Your task to perform on an android device: Do I have any events this weekend? Image 0: 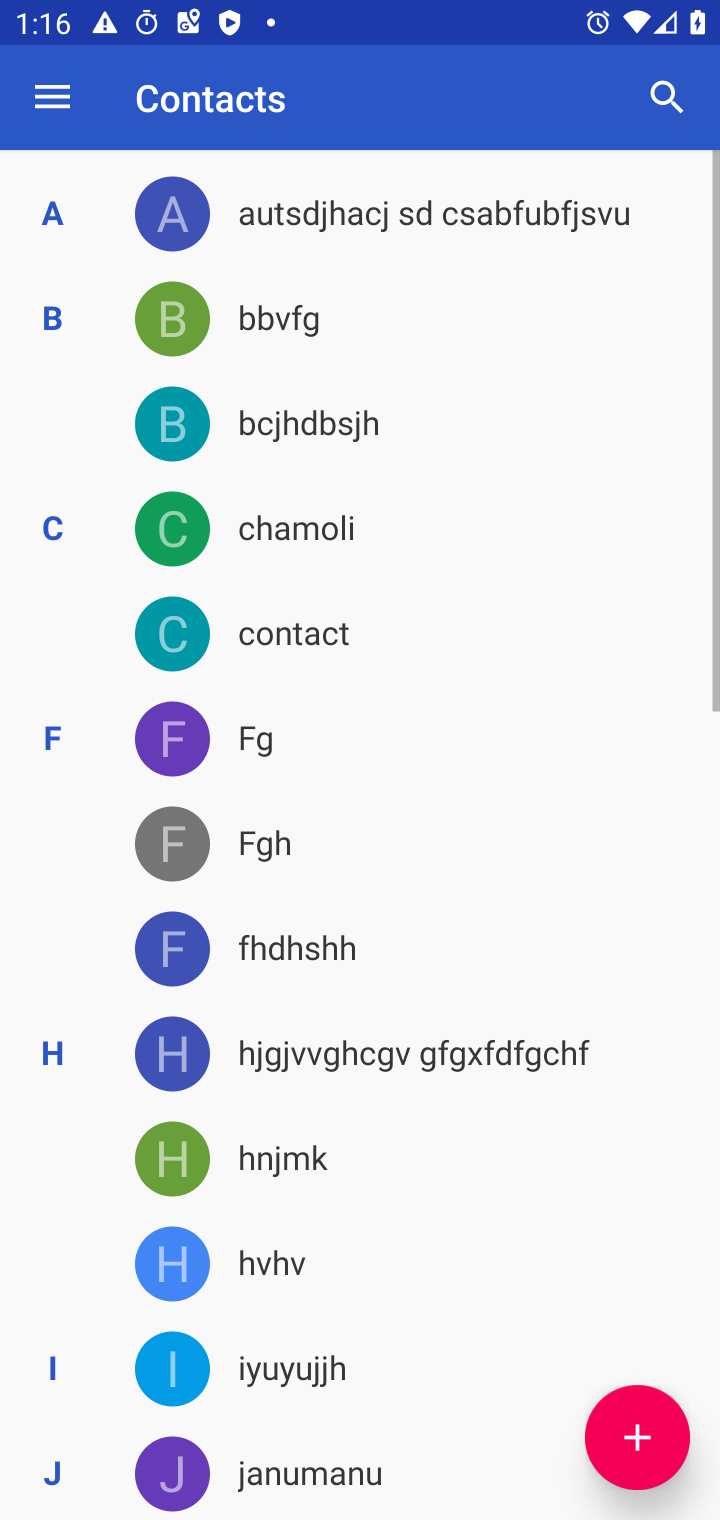
Step 0: press home button
Your task to perform on an android device: Do I have any events this weekend? Image 1: 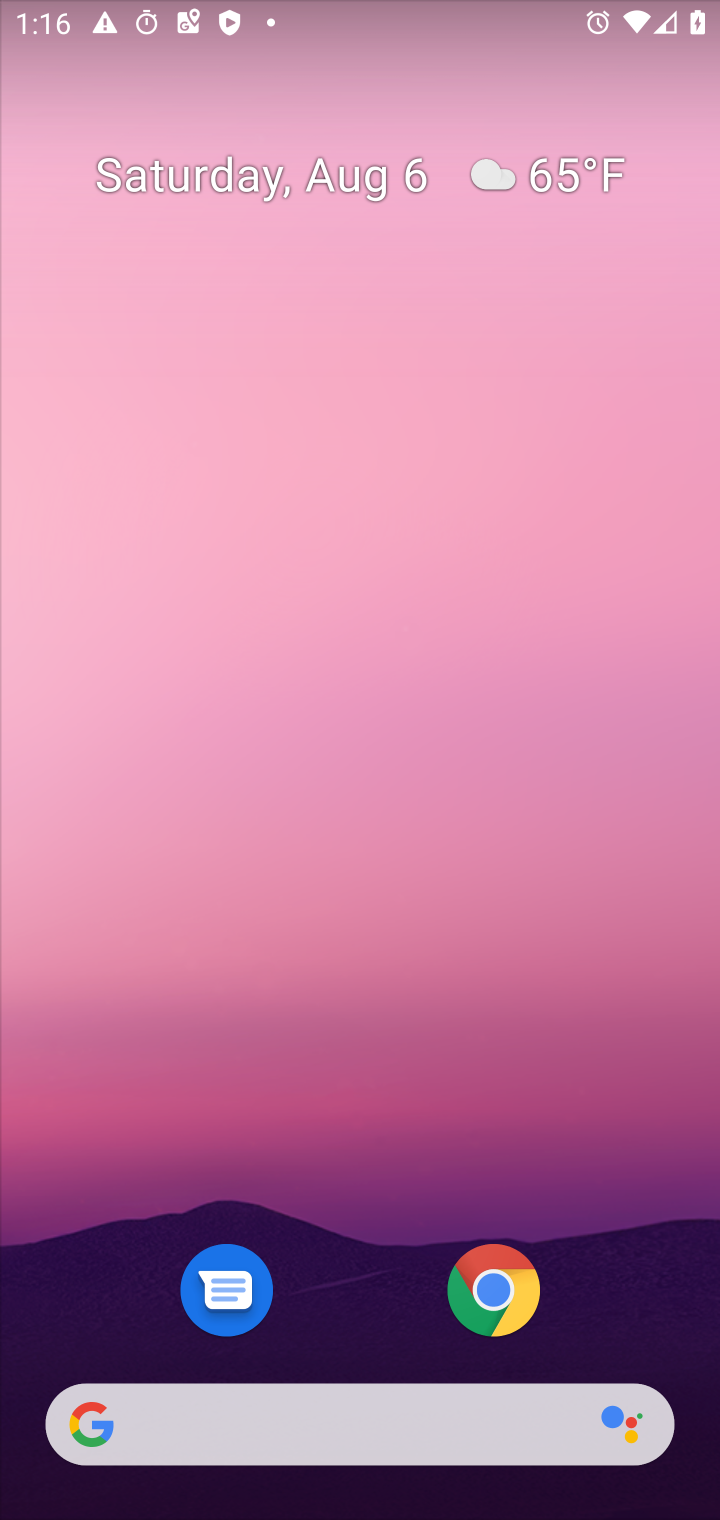
Step 1: drag from (365, 1334) to (344, 11)
Your task to perform on an android device: Do I have any events this weekend? Image 2: 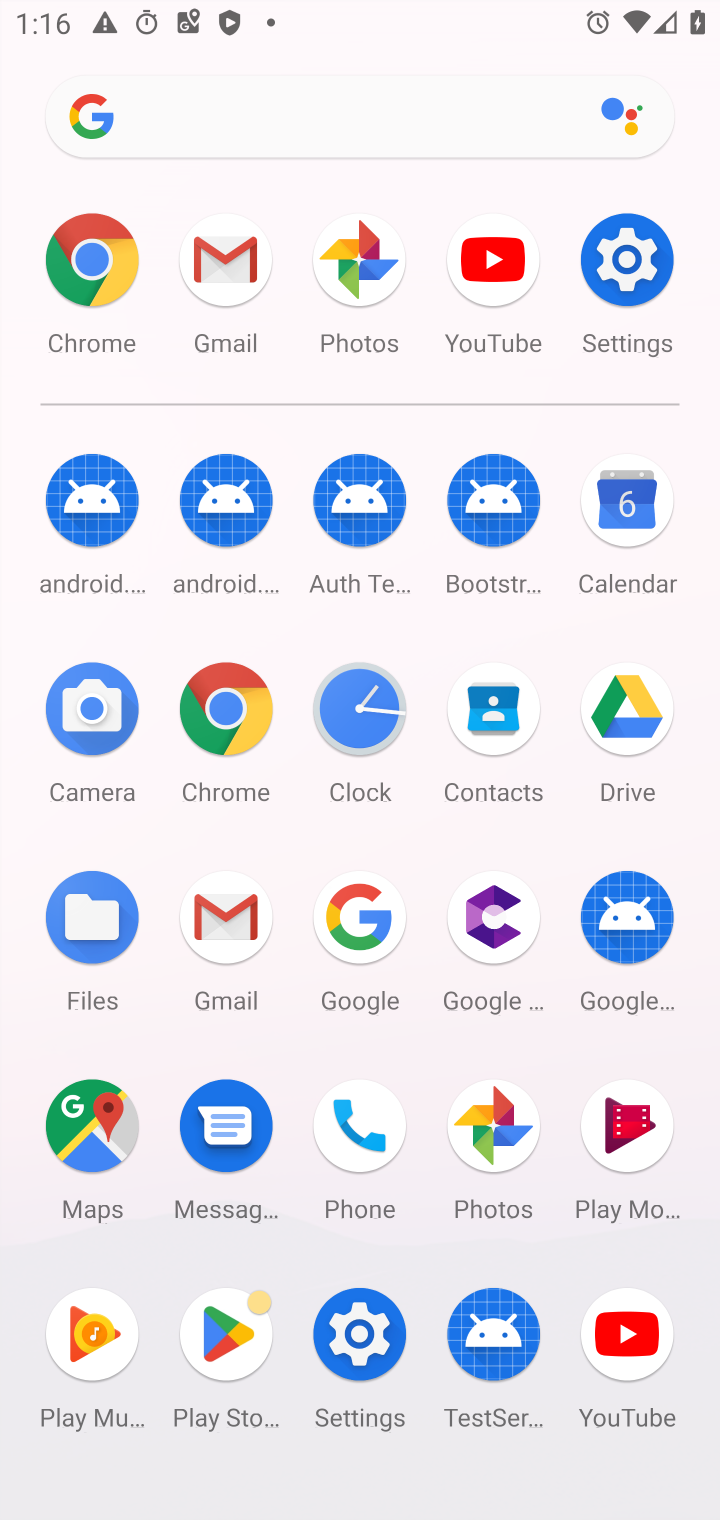
Step 2: click (627, 487)
Your task to perform on an android device: Do I have any events this weekend? Image 3: 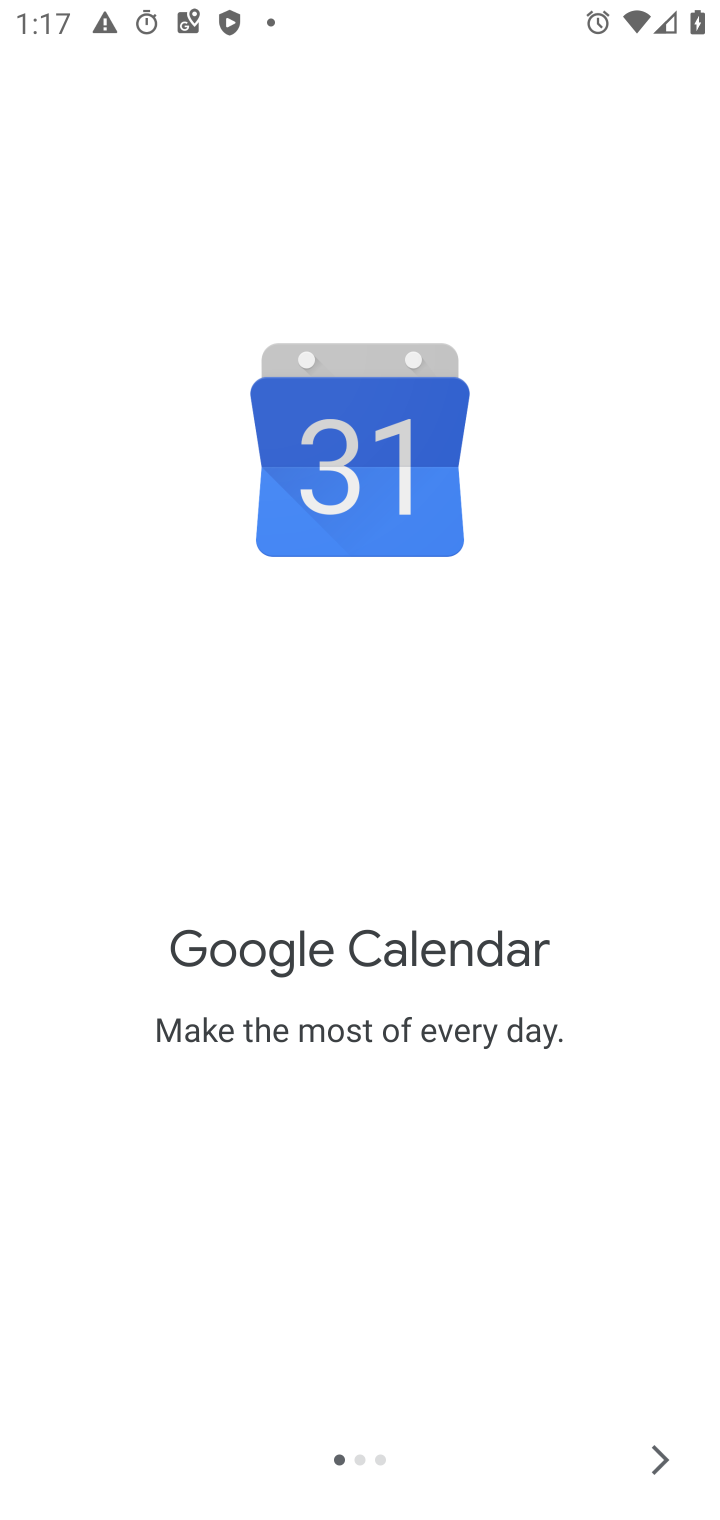
Step 3: click (644, 1441)
Your task to perform on an android device: Do I have any events this weekend? Image 4: 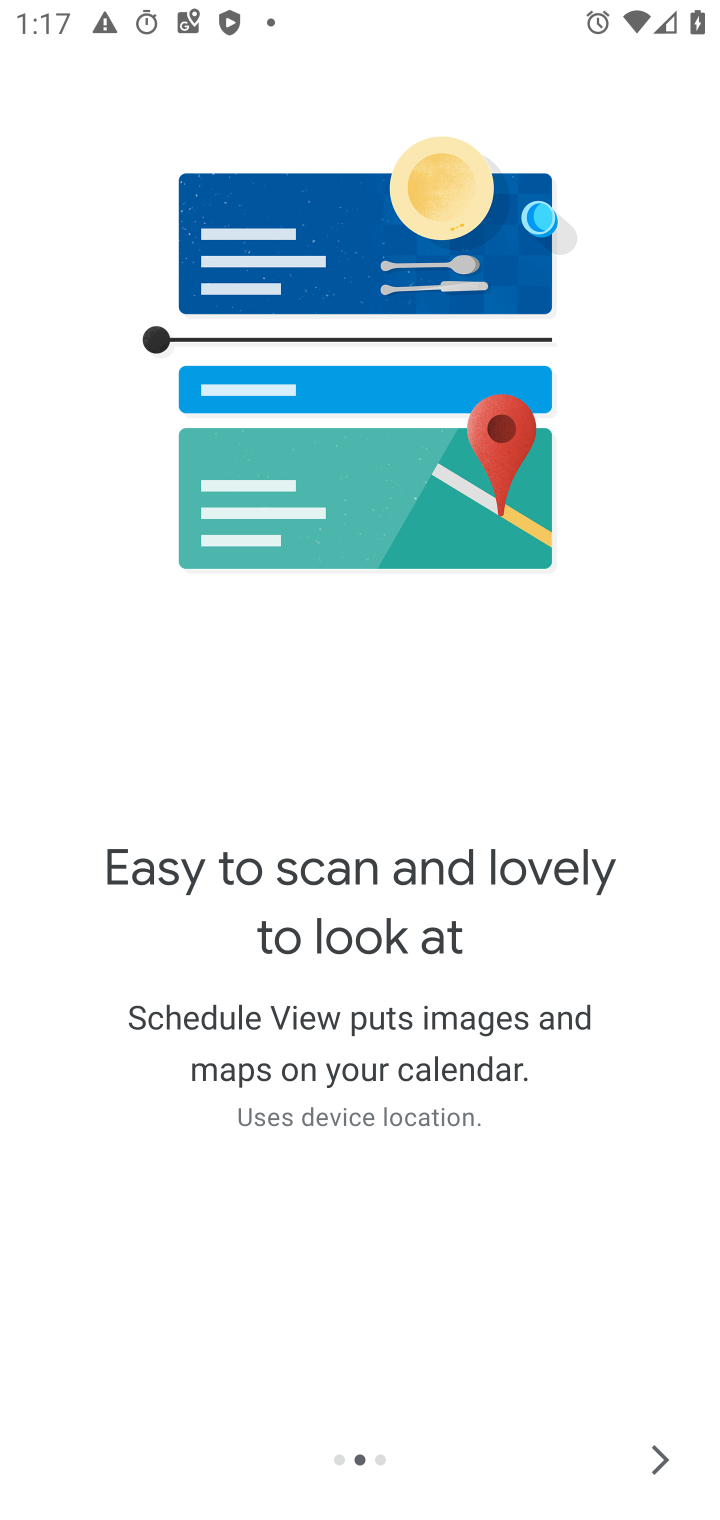
Step 4: click (644, 1441)
Your task to perform on an android device: Do I have any events this weekend? Image 5: 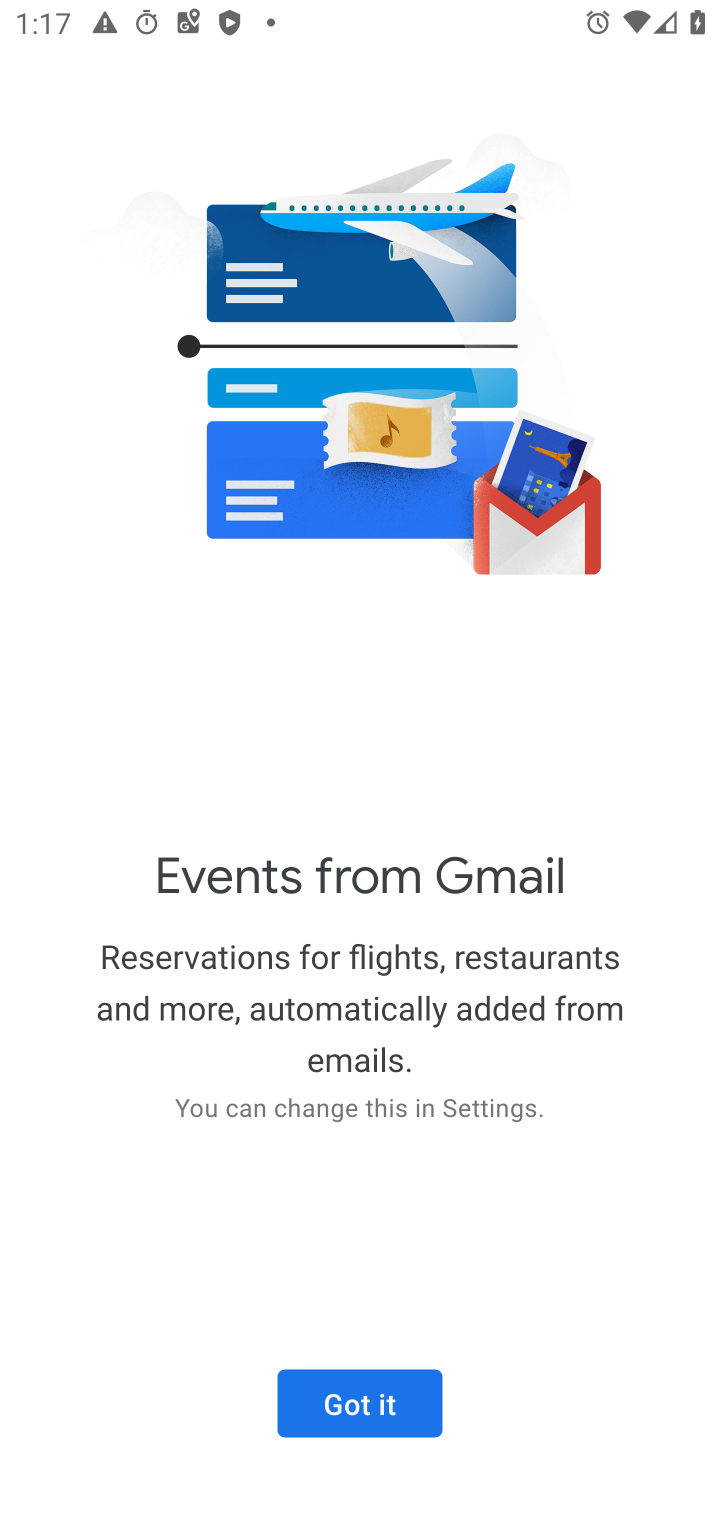
Step 5: click (353, 1384)
Your task to perform on an android device: Do I have any events this weekend? Image 6: 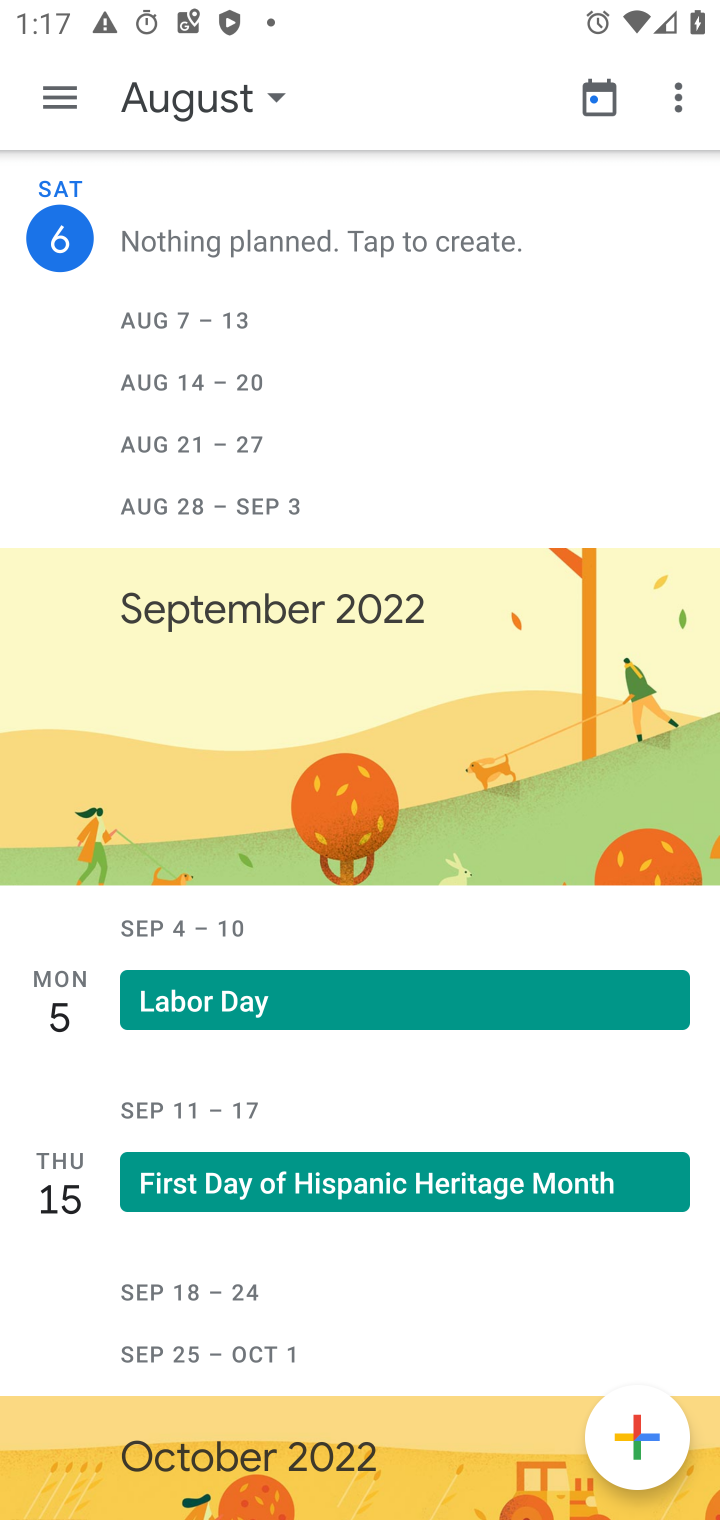
Step 6: click (67, 99)
Your task to perform on an android device: Do I have any events this weekend? Image 7: 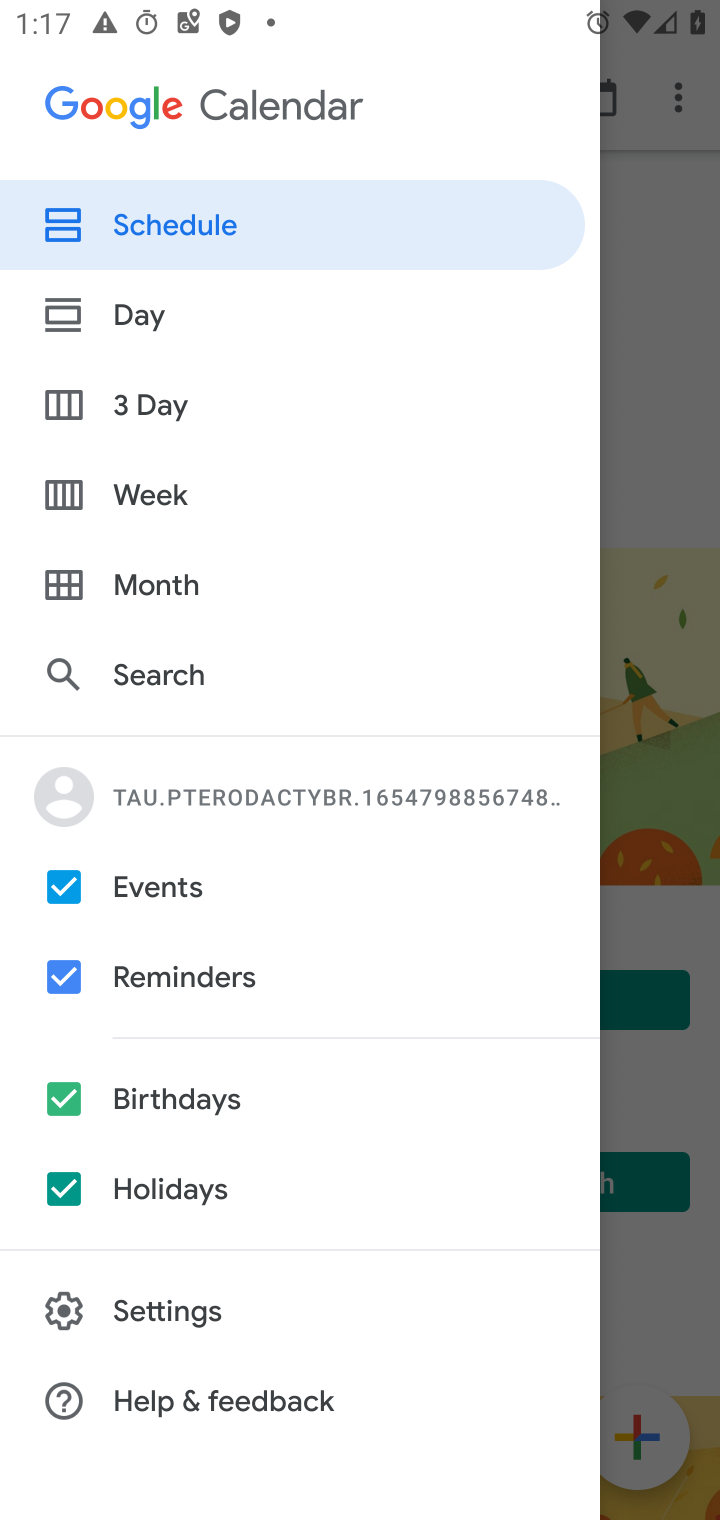
Step 7: click (97, 494)
Your task to perform on an android device: Do I have any events this weekend? Image 8: 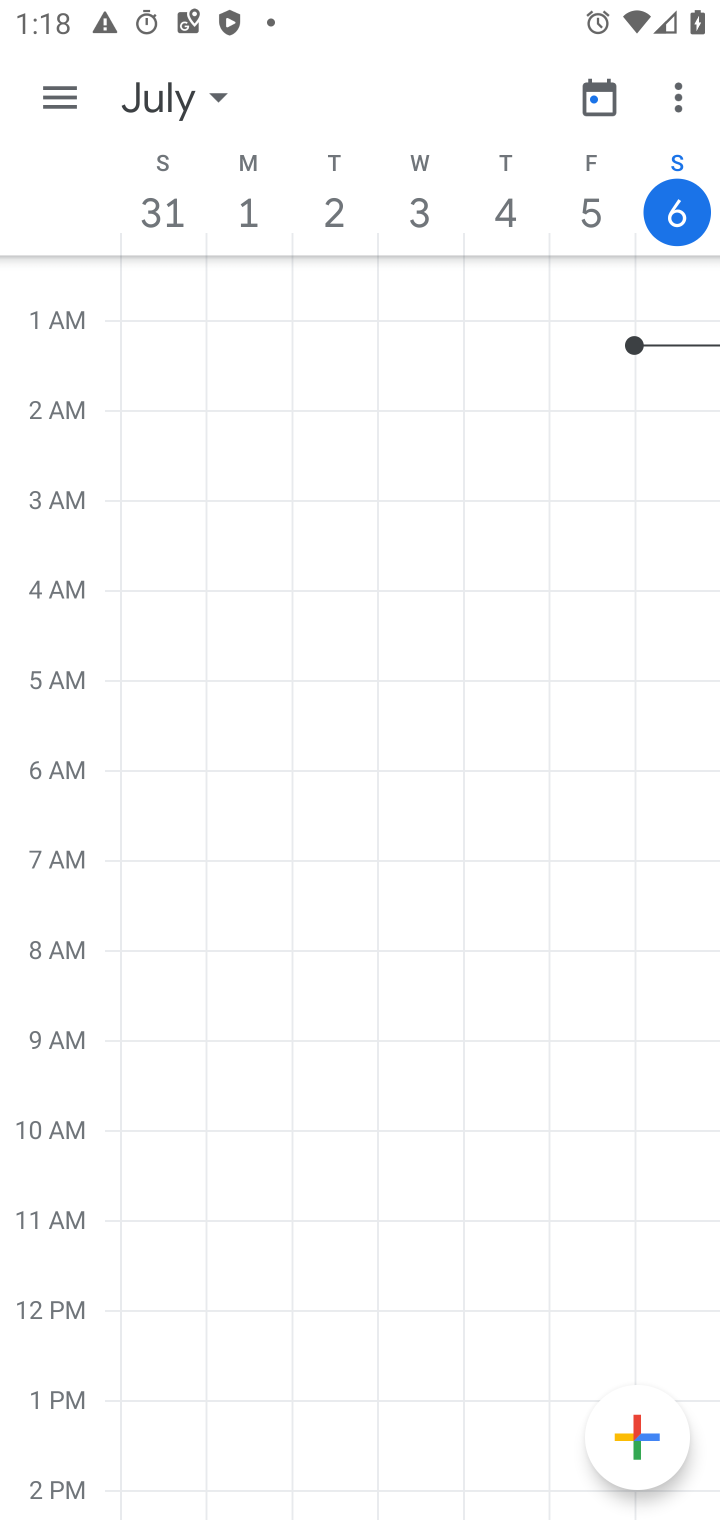
Step 8: click (41, 86)
Your task to perform on an android device: Do I have any events this weekend? Image 9: 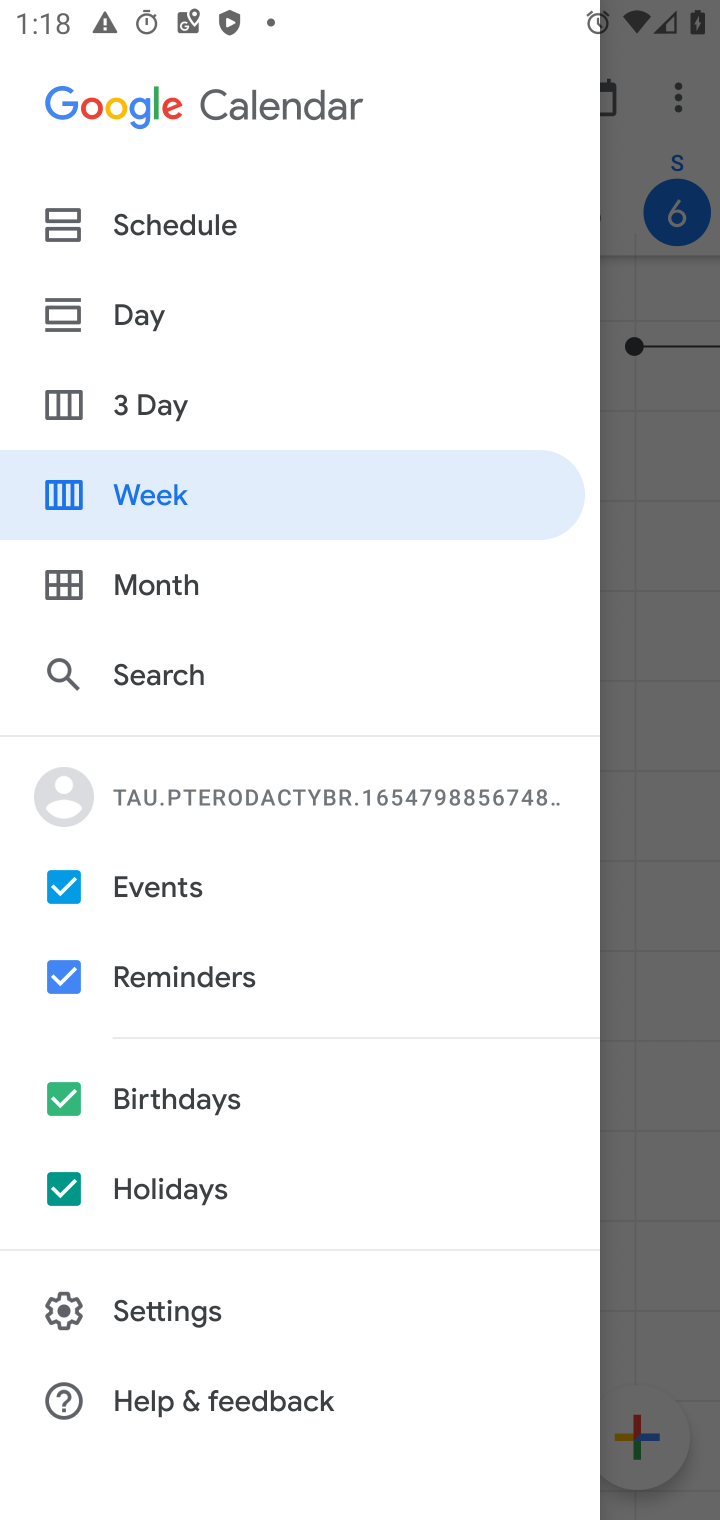
Step 9: click (63, 967)
Your task to perform on an android device: Do I have any events this weekend? Image 10: 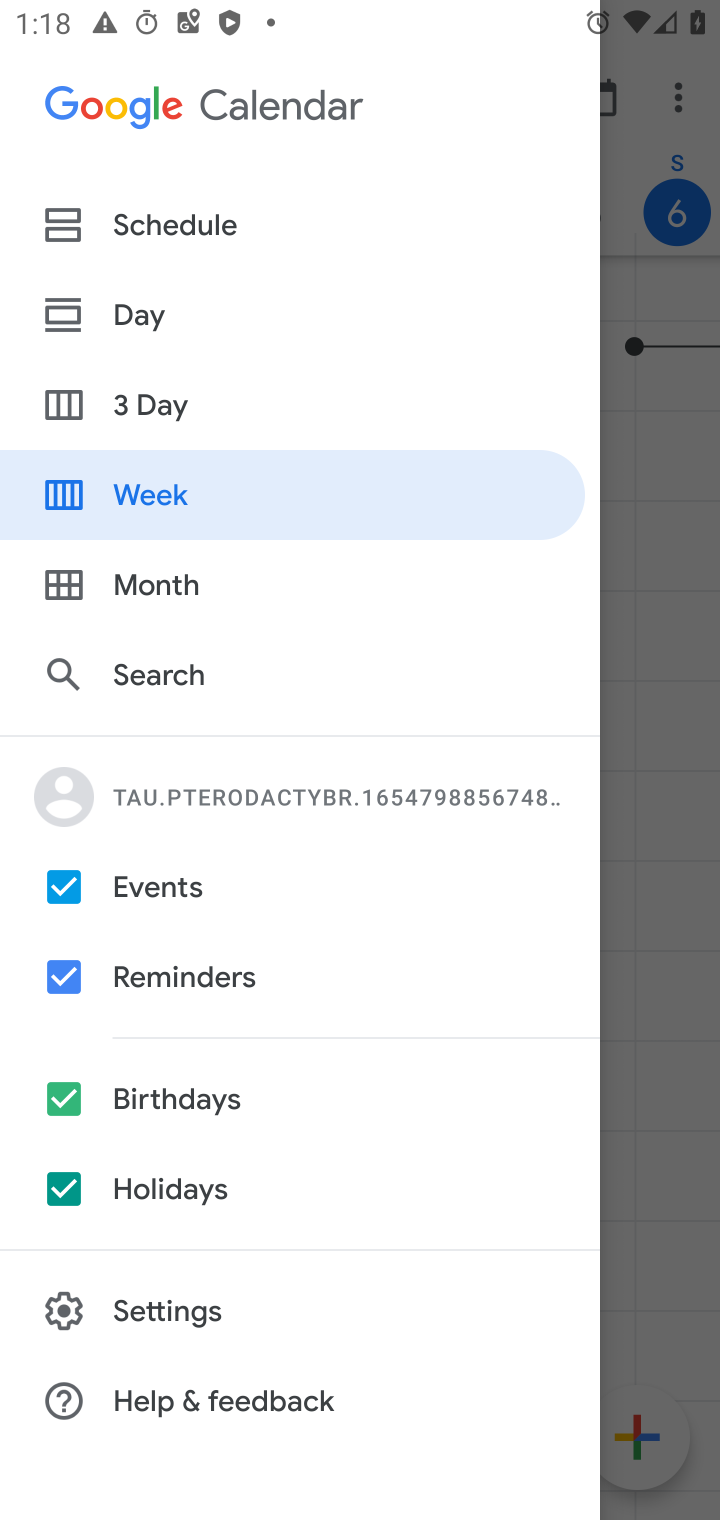
Step 10: click (51, 1090)
Your task to perform on an android device: Do I have any events this weekend? Image 11: 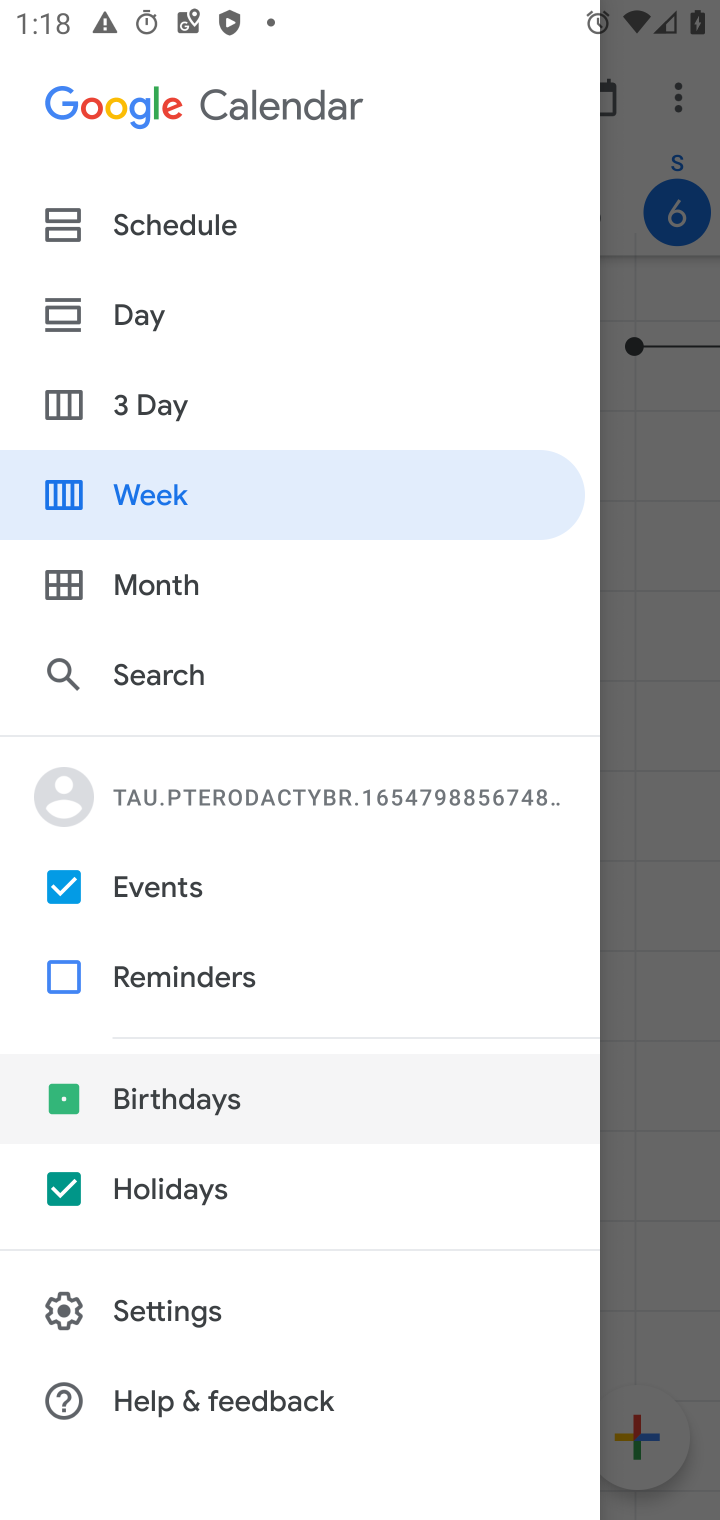
Step 11: click (77, 1175)
Your task to perform on an android device: Do I have any events this weekend? Image 12: 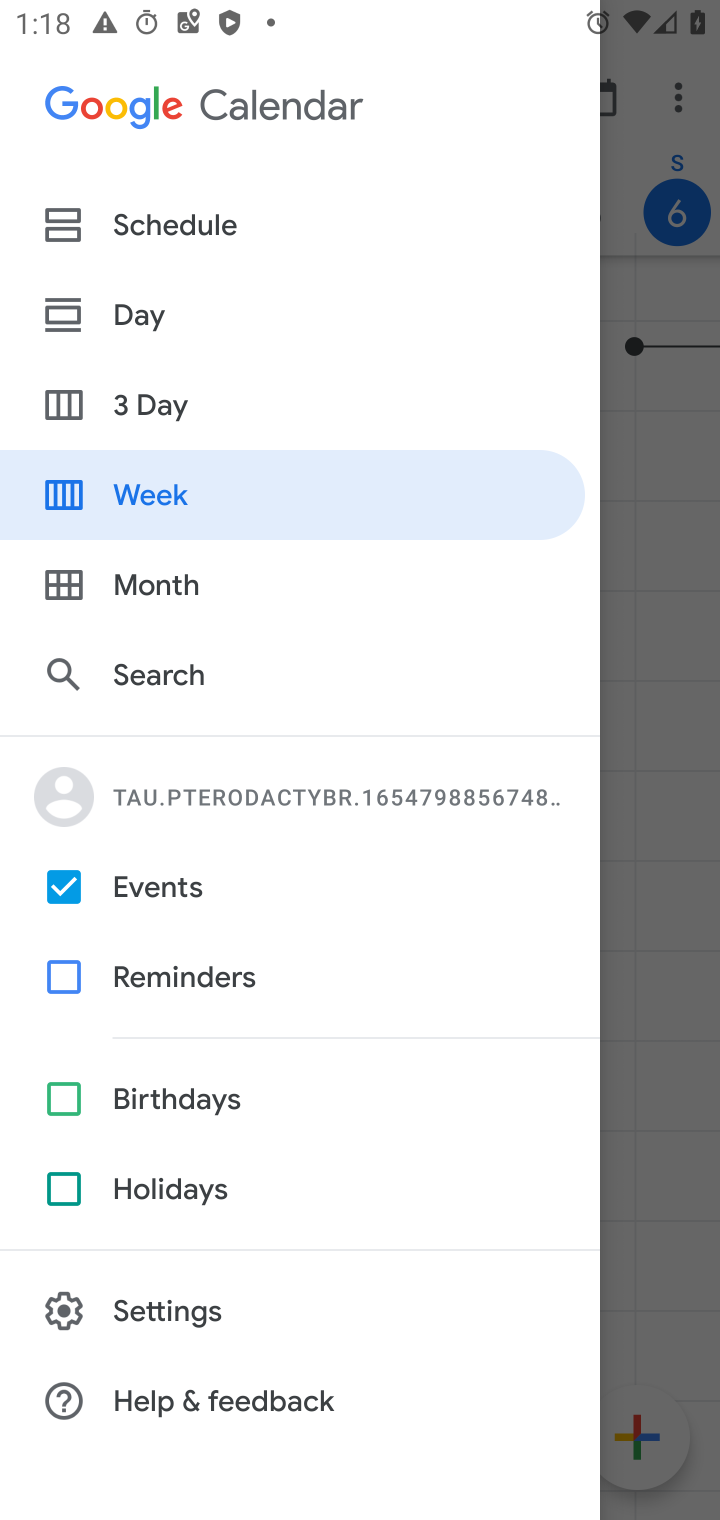
Step 12: click (118, 216)
Your task to perform on an android device: Do I have any events this weekend? Image 13: 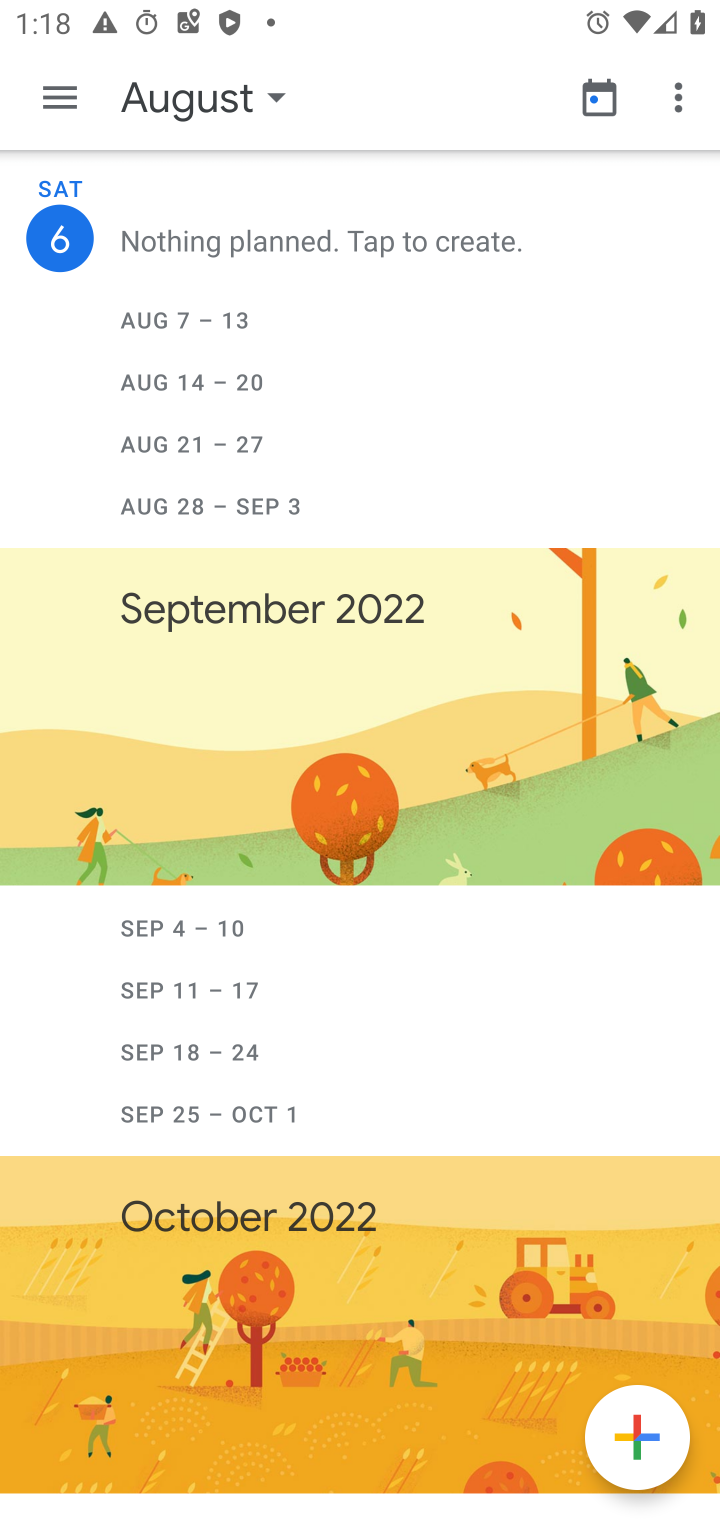
Step 13: task complete